Your task to perform on an android device: turn off smart reply in the gmail app Image 0: 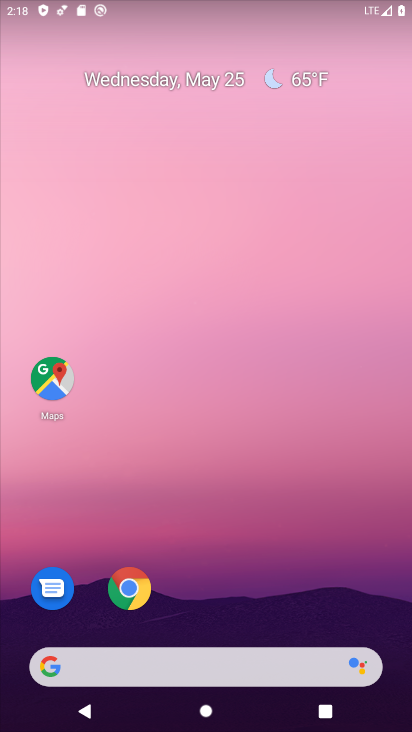
Step 0: drag from (187, 612) to (249, 148)
Your task to perform on an android device: turn off smart reply in the gmail app Image 1: 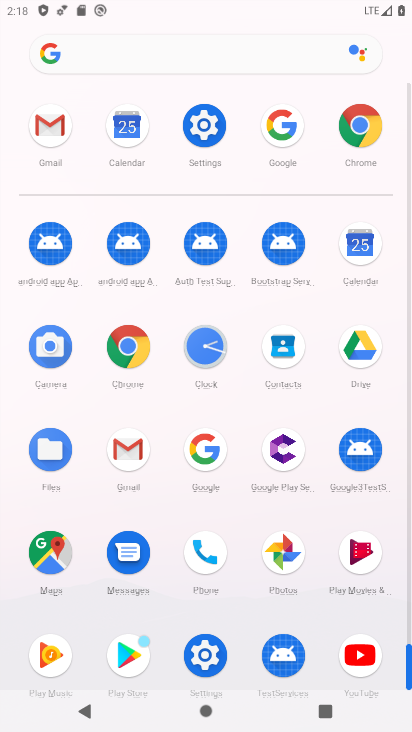
Step 1: click (129, 451)
Your task to perform on an android device: turn off smart reply in the gmail app Image 2: 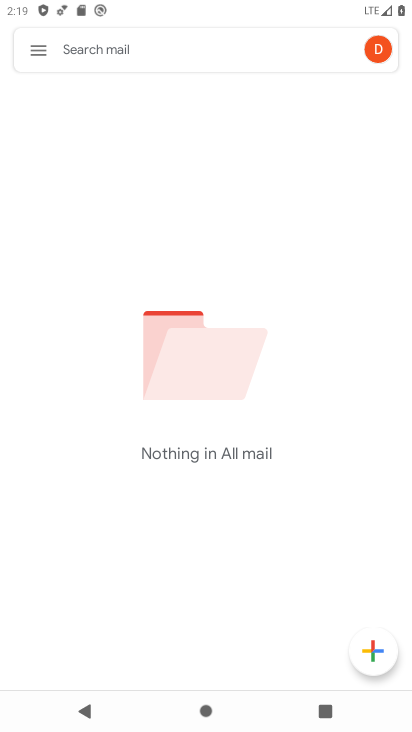
Step 2: click (34, 50)
Your task to perform on an android device: turn off smart reply in the gmail app Image 3: 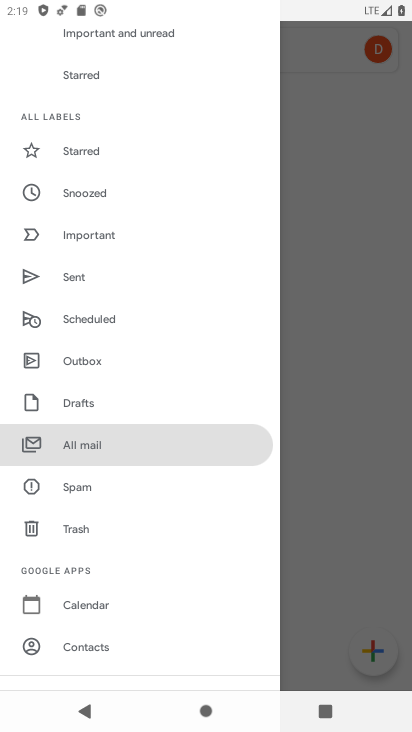
Step 3: drag from (89, 510) to (150, 162)
Your task to perform on an android device: turn off smart reply in the gmail app Image 4: 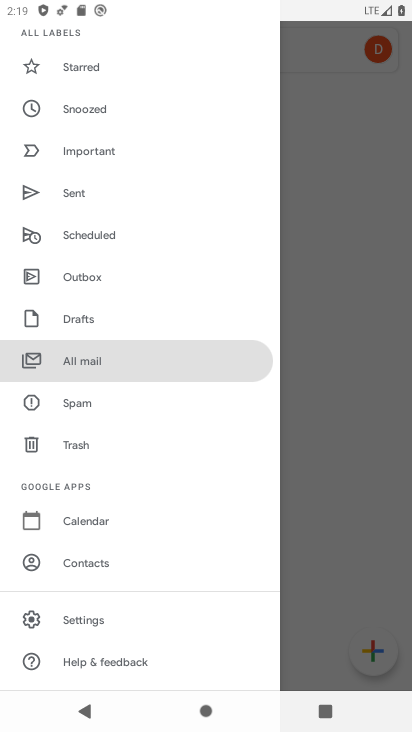
Step 4: click (82, 624)
Your task to perform on an android device: turn off smart reply in the gmail app Image 5: 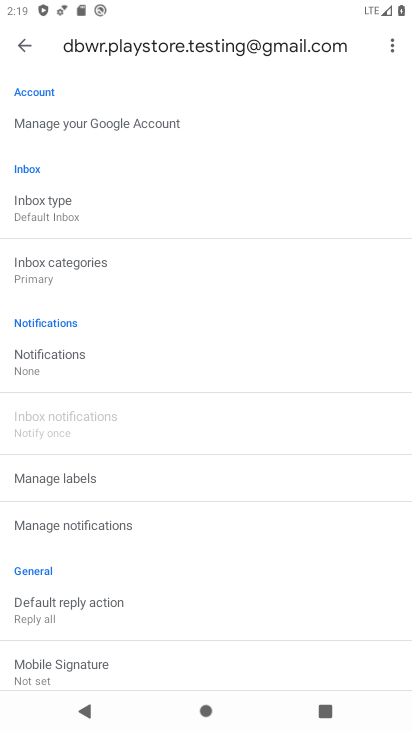
Step 5: drag from (93, 602) to (175, 167)
Your task to perform on an android device: turn off smart reply in the gmail app Image 6: 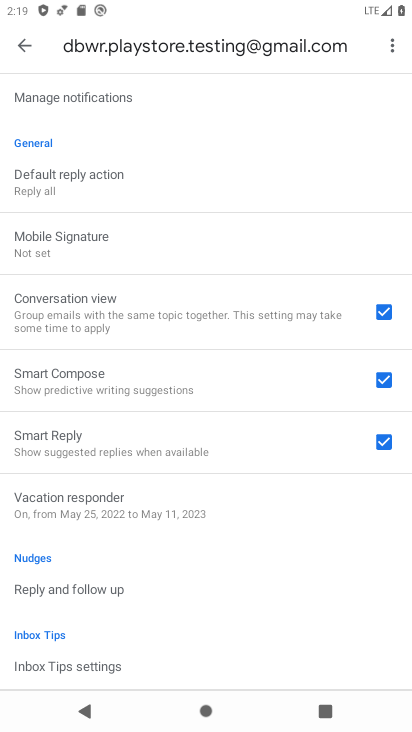
Step 6: click (379, 442)
Your task to perform on an android device: turn off smart reply in the gmail app Image 7: 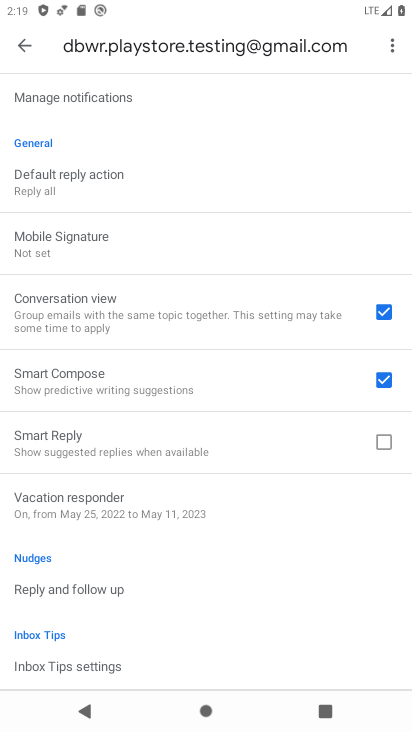
Step 7: task complete